Your task to perform on an android device: change the clock style Image 0: 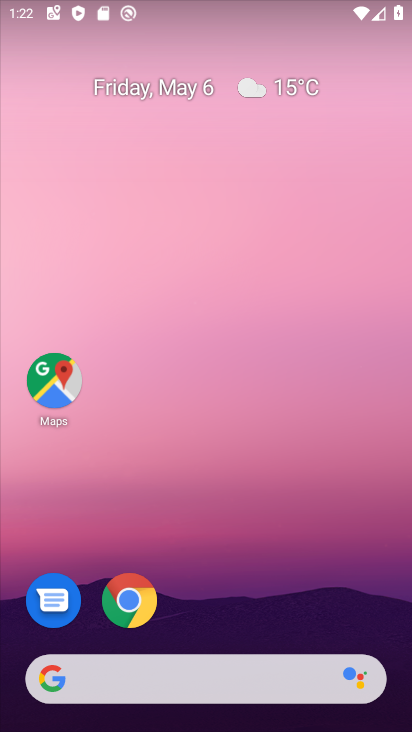
Step 0: drag from (347, 614) to (388, 11)
Your task to perform on an android device: change the clock style Image 1: 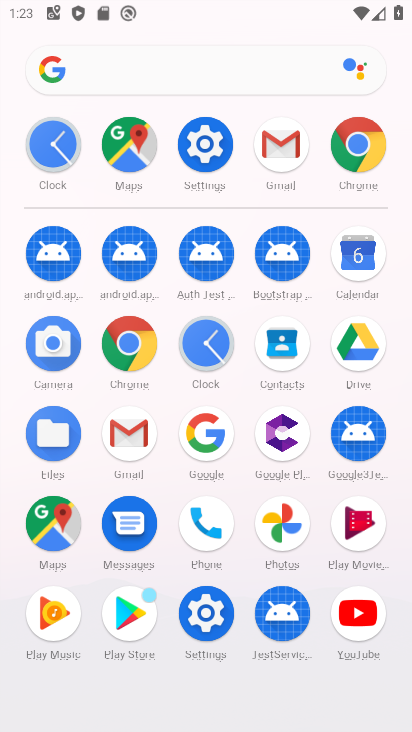
Step 1: click (217, 362)
Your task to perform on an android device: change the clock style Image 2: 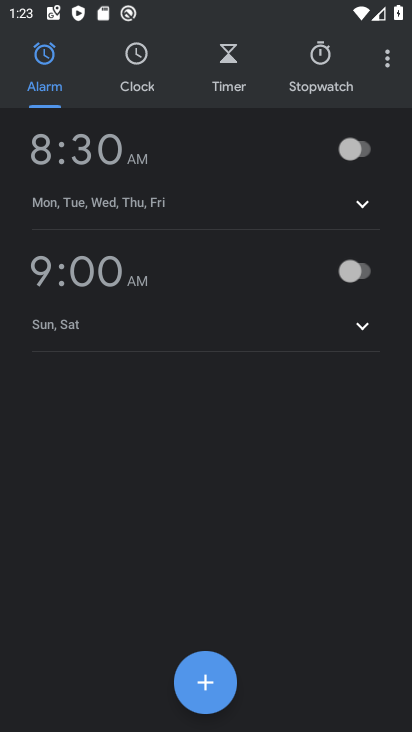
Step 2: click (378, 54)
Your task to perform on an android device: change the clock style Image 3: 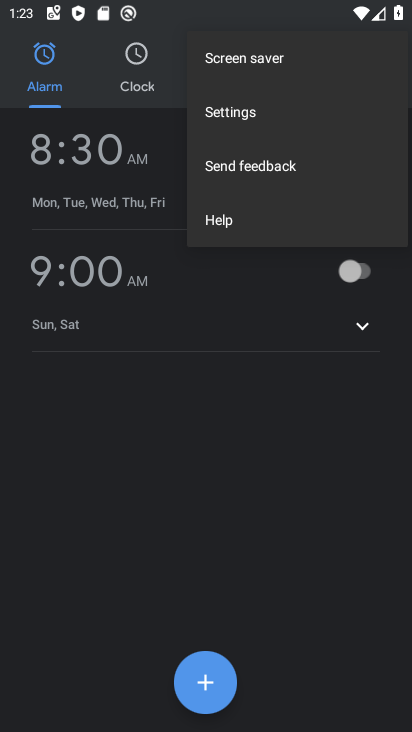
Step 3: click (236, 107)
Your task to perform on an android device: change the clock style Image 4: 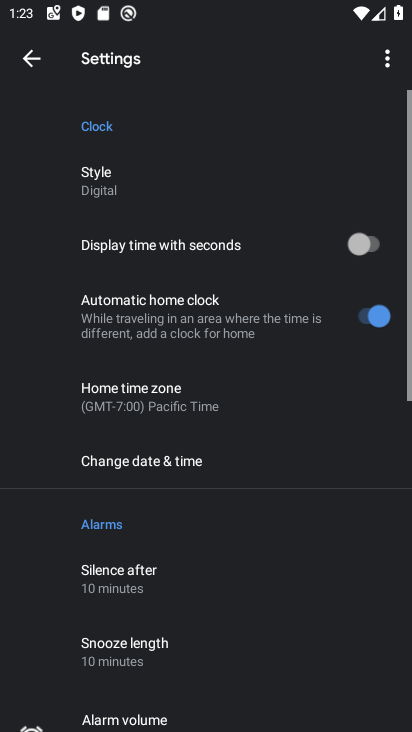
Step 4: click (133, 177)
Your task to perform on an android device: change the clock style Image 5: 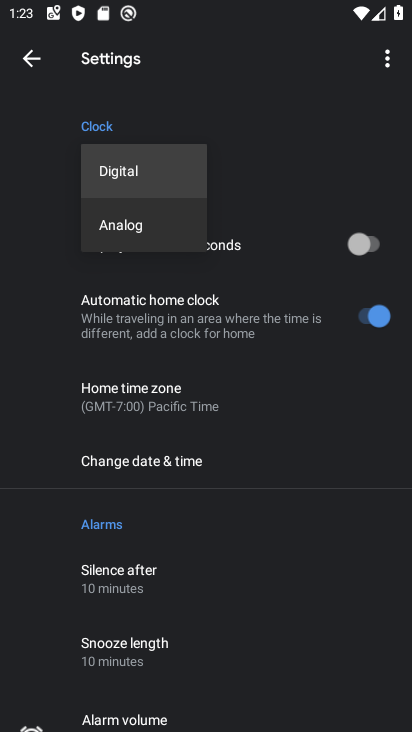
Step 5: click (132, 216)
Your task to perform on an android device: change the clock style Image 6: 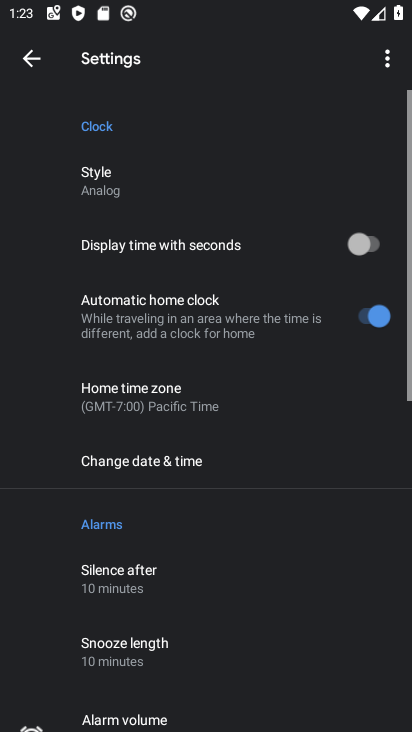
Step 6: task complete